Your task to perform on an android device: Go to sound settings Image 0: 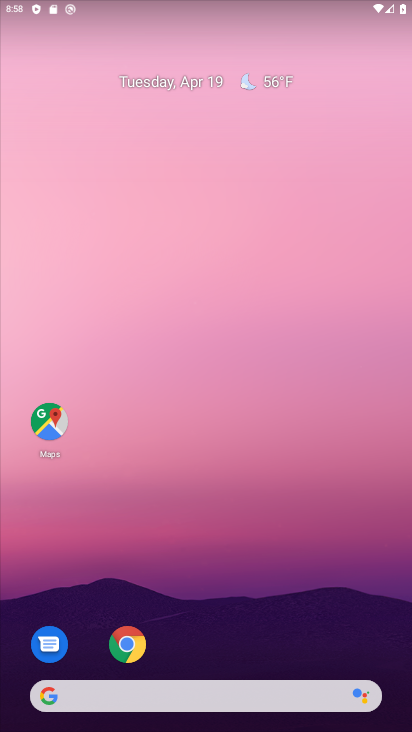
Step 0: drag from (213, 645) to (228, 106)
Your task to perform on an android device: Go to sound settings Image 1: 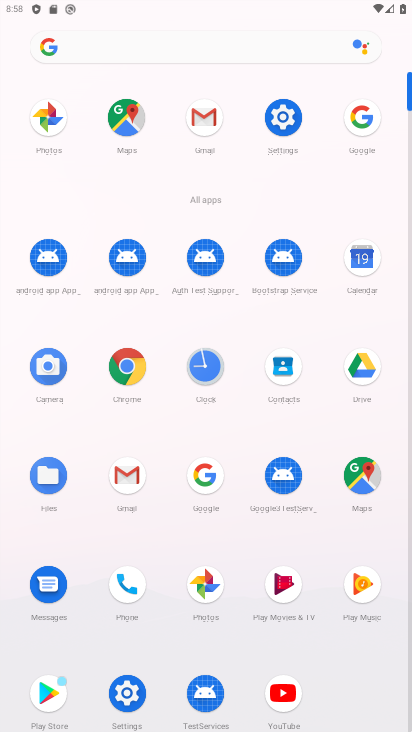
Step 1: click (290, 121)
Your task to perform on an android device: Go to sound settings Image 2: 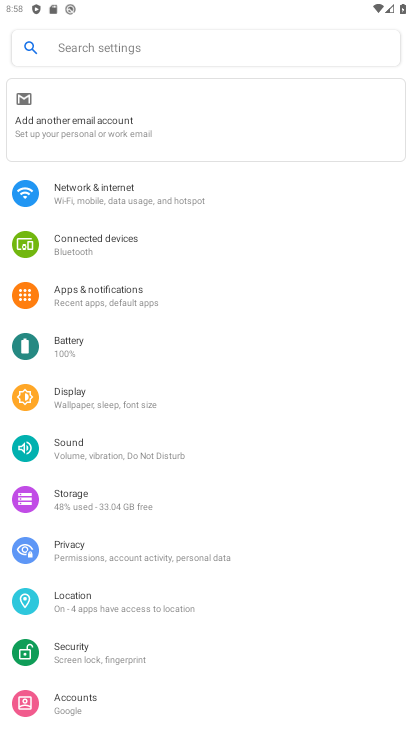
Step 2: click (104, 444)
Your task to perform on an android device: Go to sound settings Image 3: 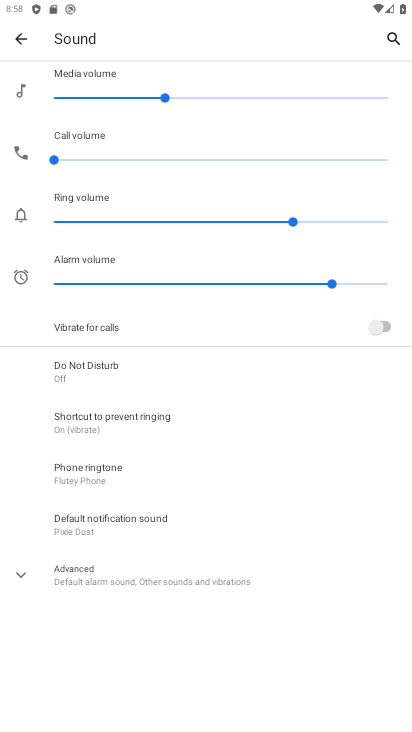
Step 3: task complete